Your task to perform on an android device: toggle javascript in the chrome app Image 0: 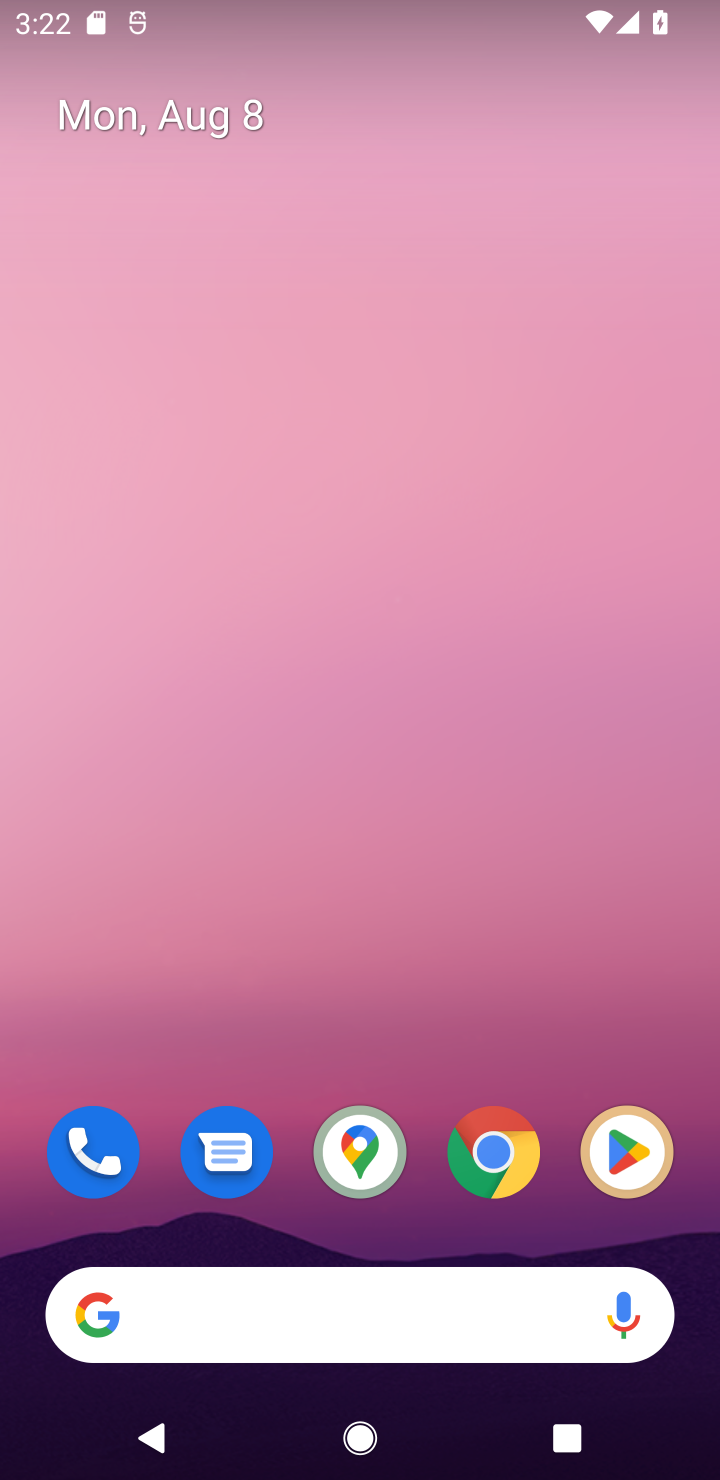
Step 0: click (480, 1137)
Your task to perform on an android device: toggle javascript in the chrome app Image 1: 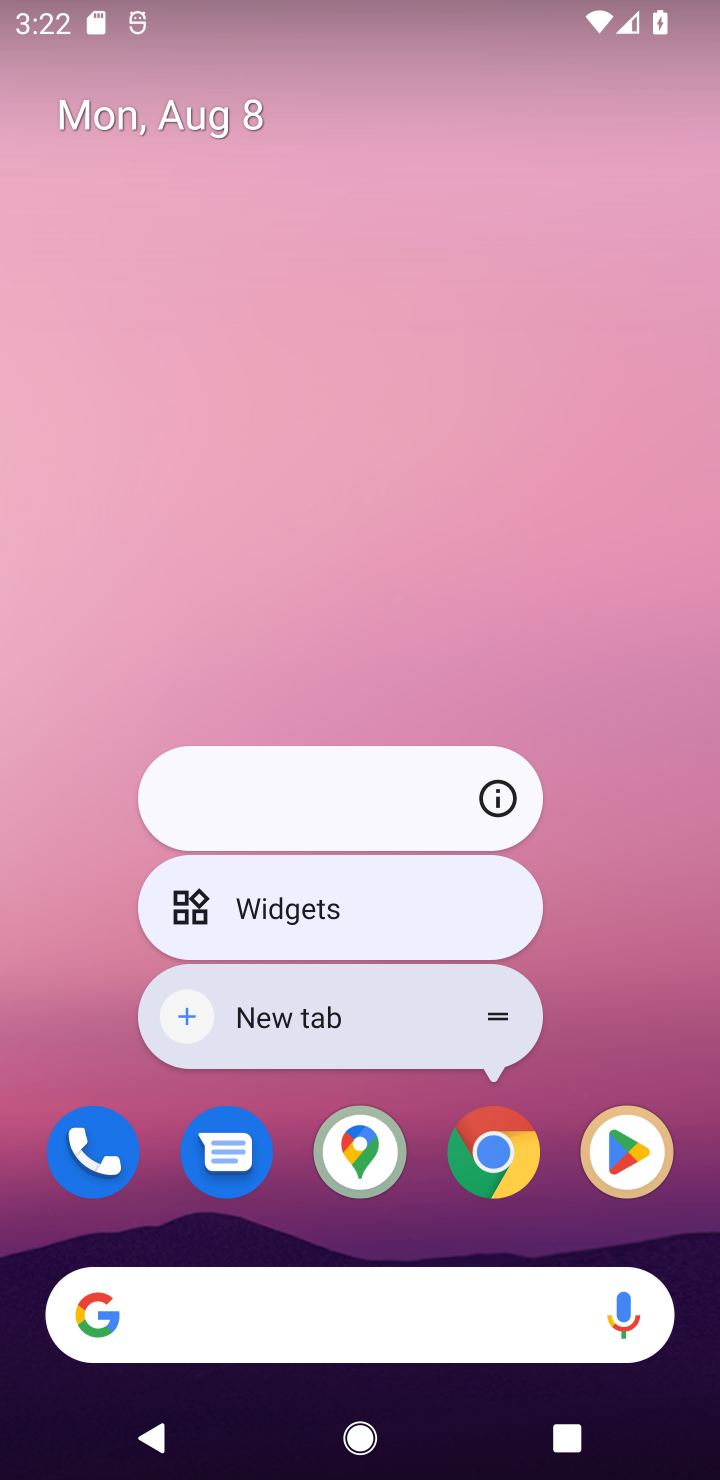
Step 1: click (480, 1137)
Your task to perform on an android device: toggle javascript in the chrome app Image 2: 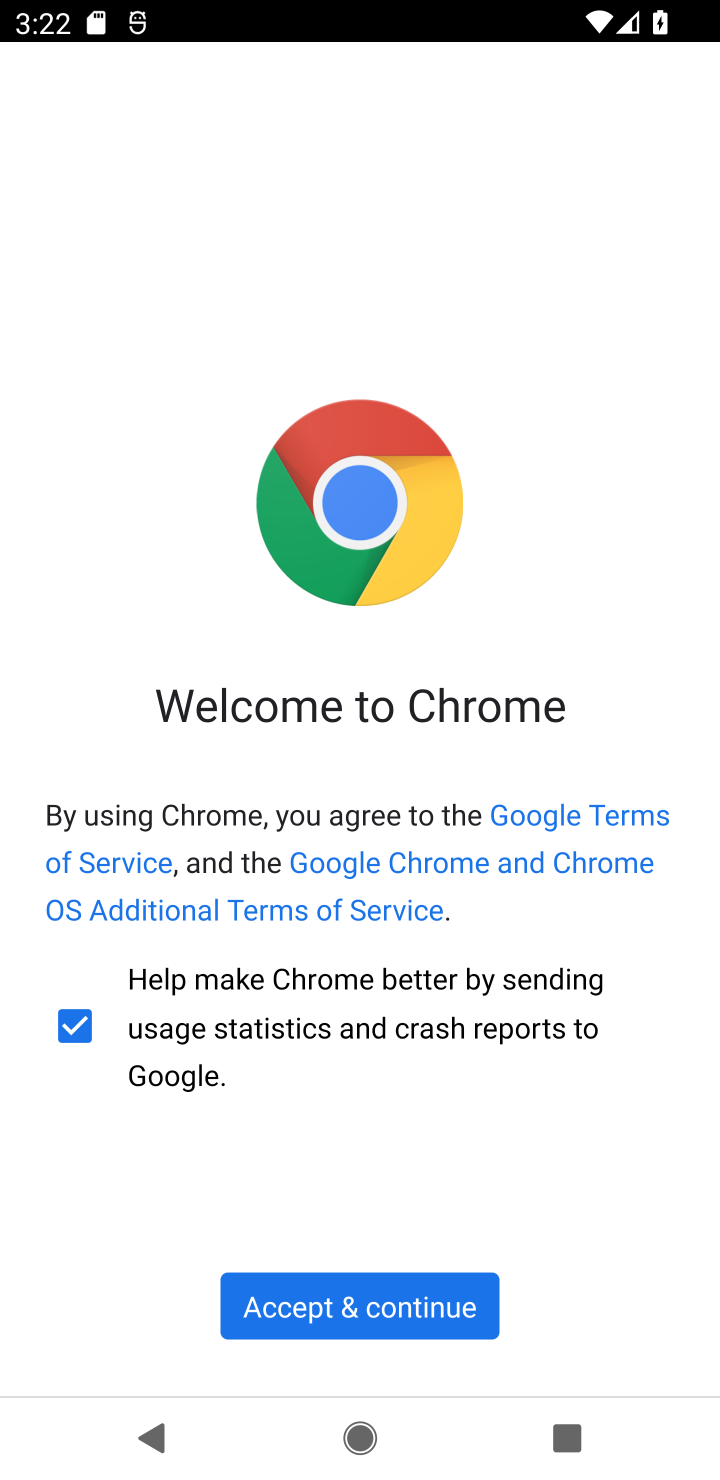
Step 2: click (438, 1277)
Your task to perform on an android device: toggle javascript in the chrome app Image 3: 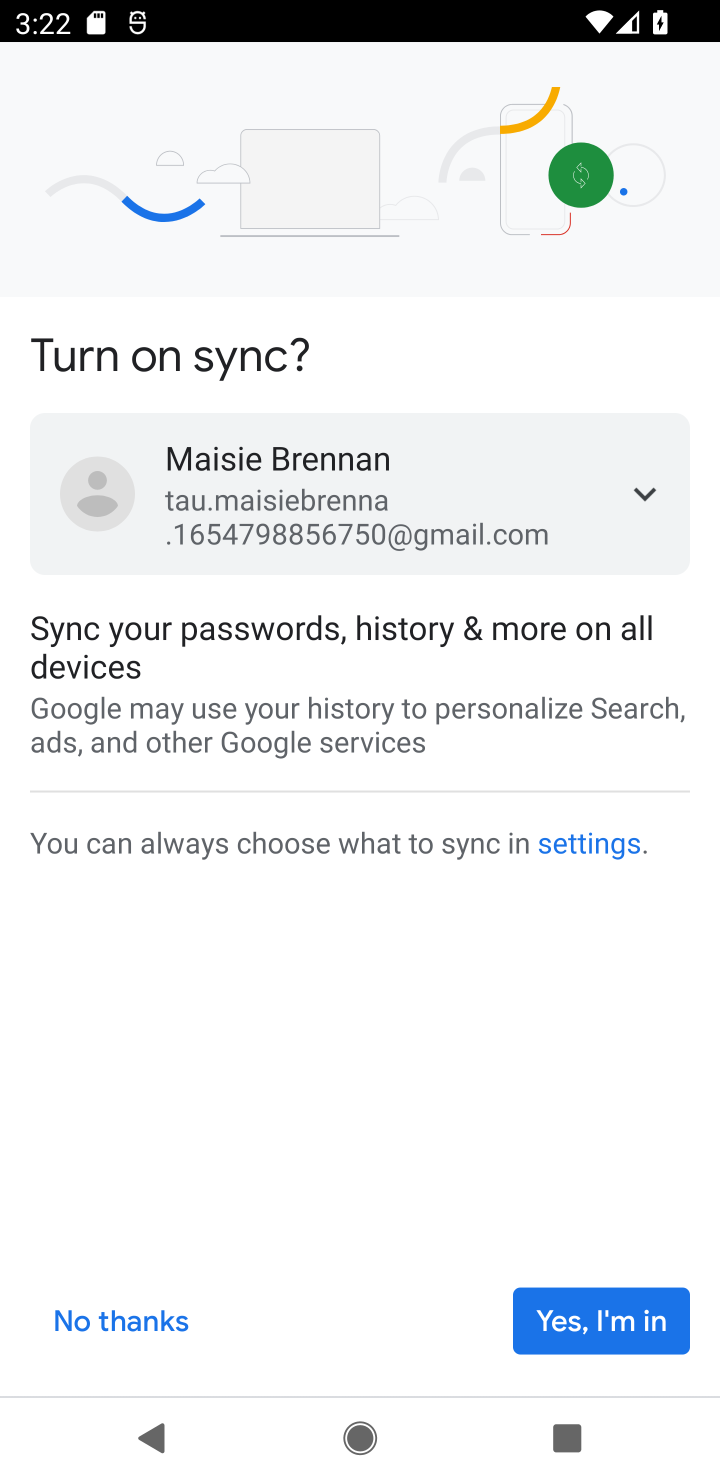
Step 3: click (582, 1298)
Your task to perform on an android device: toggle javascript in the chrome app Image 4: 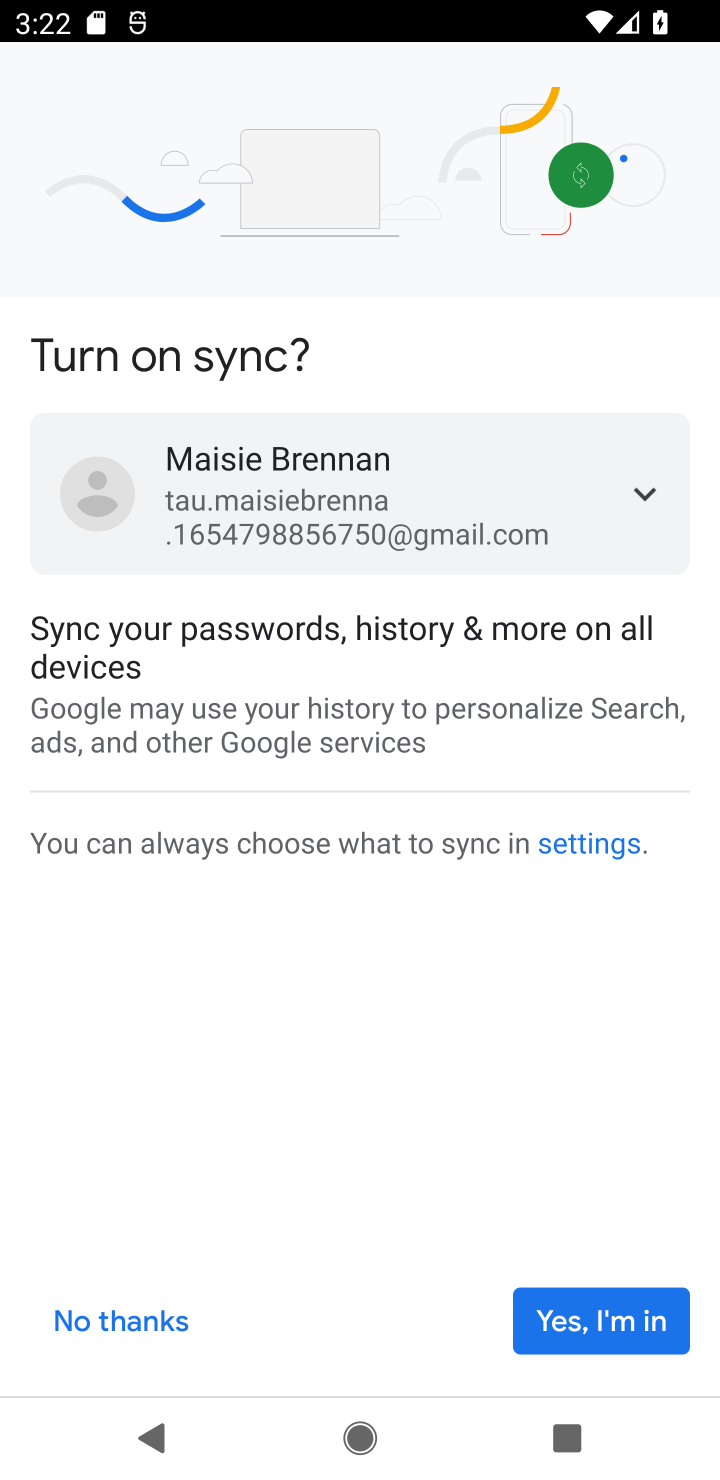
Step 4: click (597, 1321)
Your task to perform on an android device: toggle javascript in the chrome app Image 5: 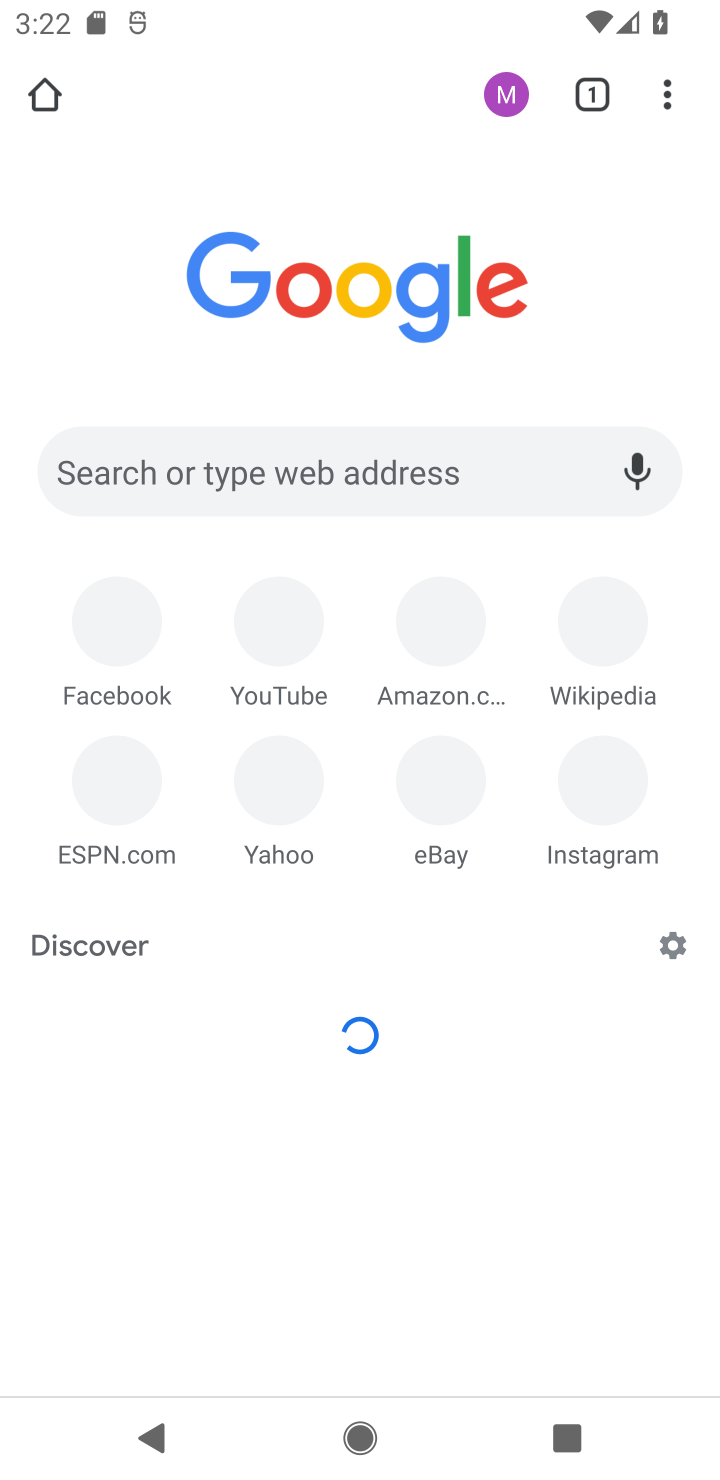
Step 5: drag from (669, 75) to (386, 874)
Your task to perform on an android device: toggle javascript in the chrome app Image 6: 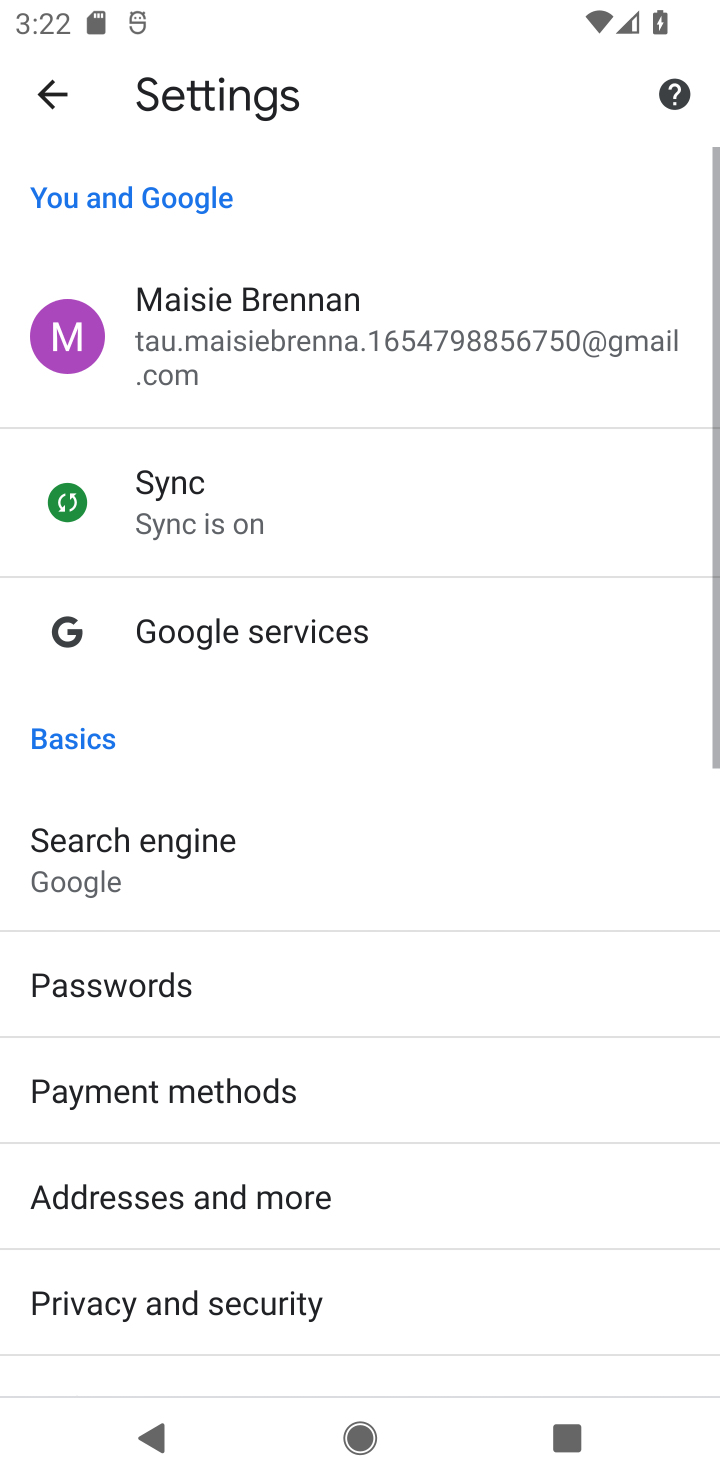
Step 6: drag from (289, 1301) to (602, 83)
Your task to perform on an android device: toggle javascript in the chrome app Image 7: 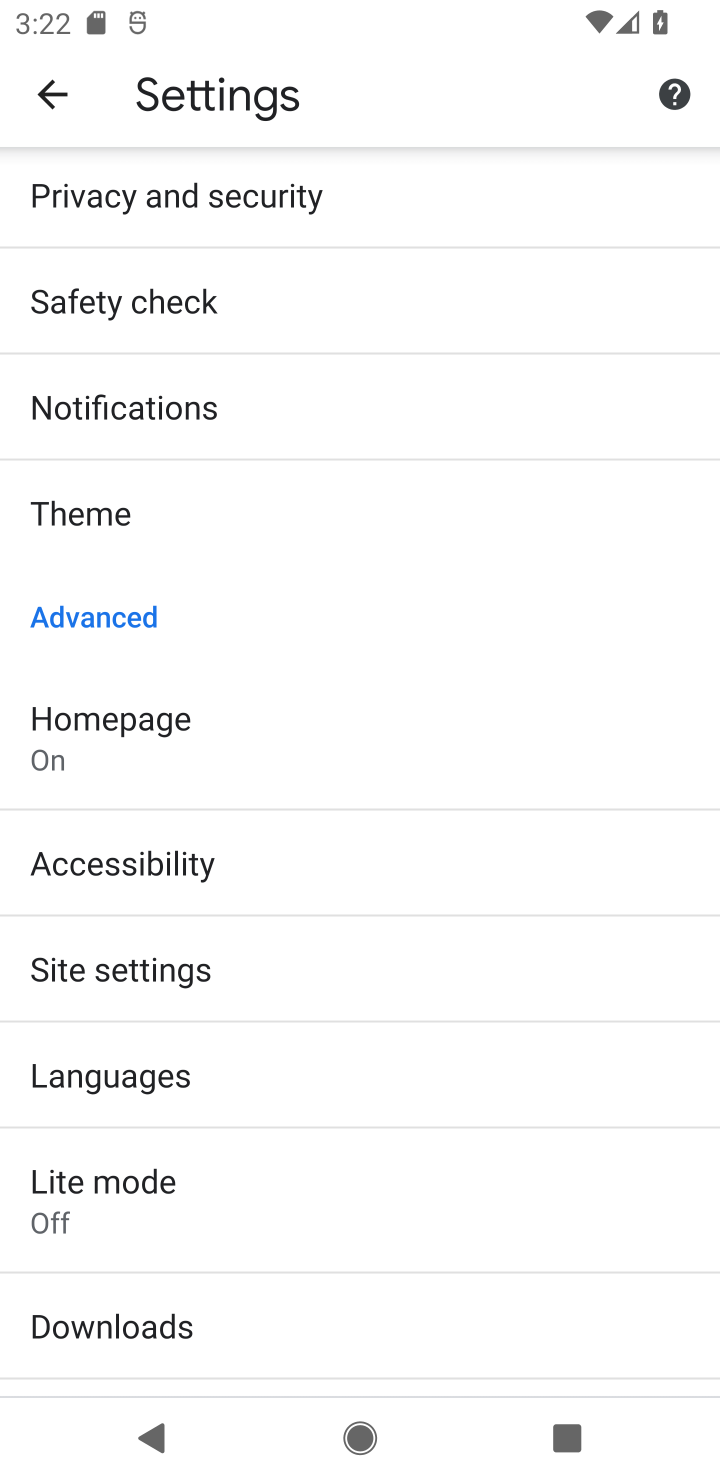
Step 7: click (154, 965)
Your task to perform on an android device: toggle javascript in the chrome app Image 8: 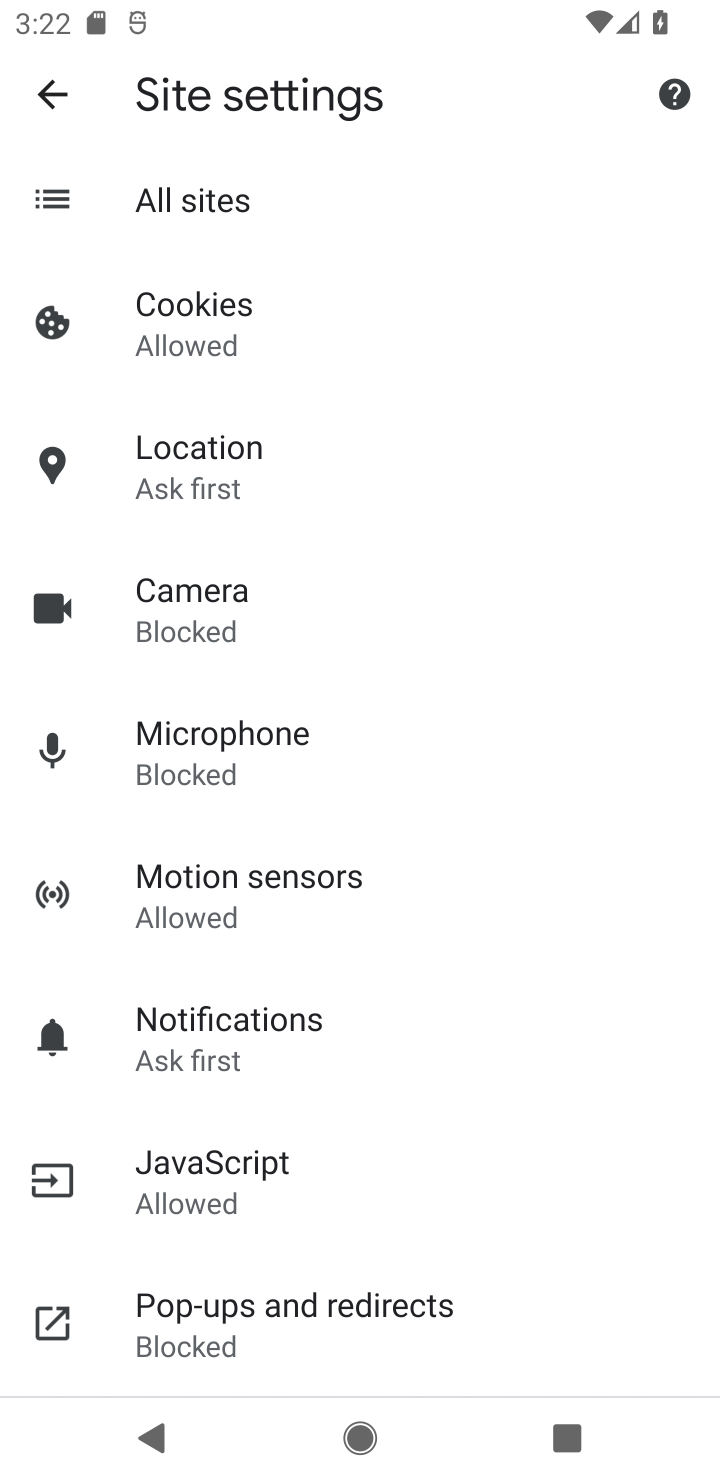
Step 8: click (200, 1185)
Your task to perform on an android device: toggle javascript in the chrome app Image 9: 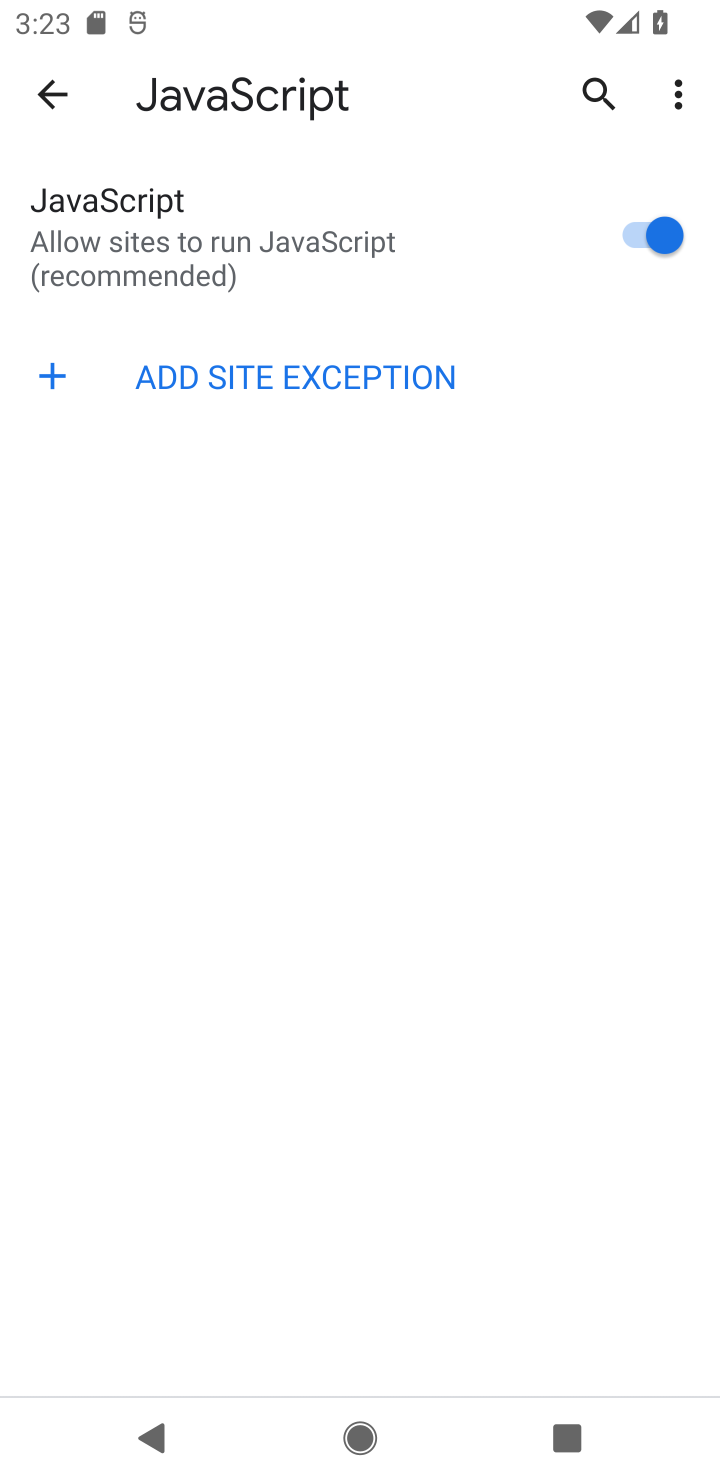
Step 9: task complete